Your task to perform on an android device: turn off javascript in the chrome app Image 0: 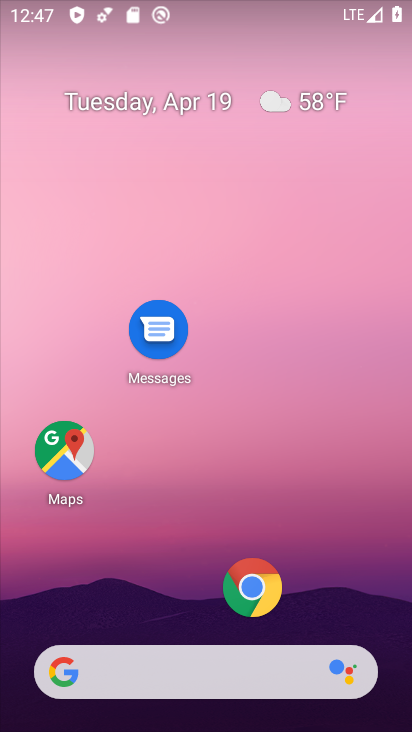
Step 0: drag from (169, 555) to (163, 98)
Your task to perform on an android device: turn off javascript in the chrome app Image 1: 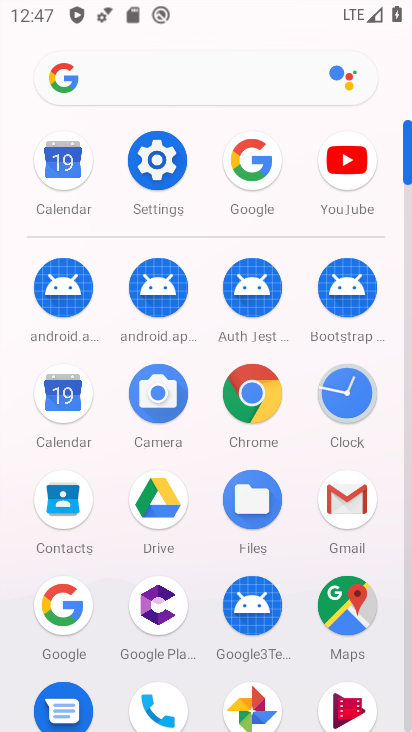
Step 1: click (252, 392)
Your task to perform on an android device: turn off javascript in the chrome app Image 2: 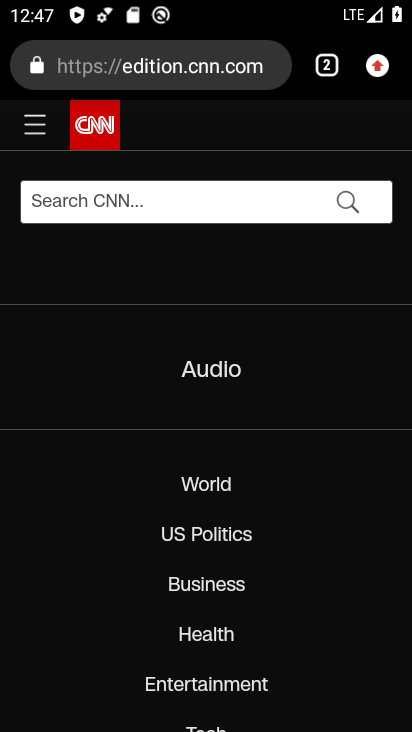
Step 2: click (375, 64)
Your task to perform on an android device: turn off javascript in the chrome app Image 3: 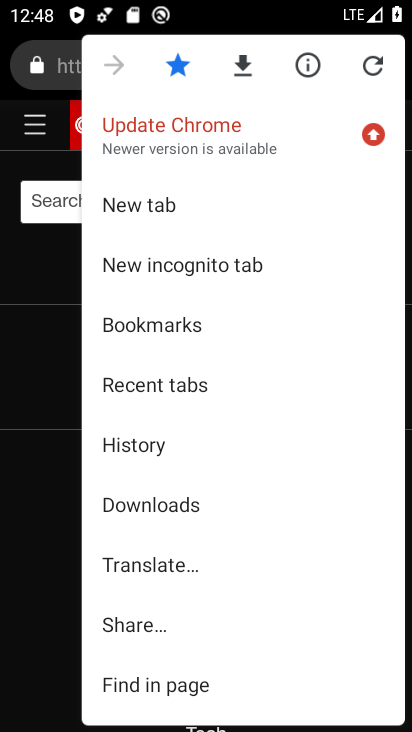
Step 3: drag from (214, 549) to (203, 108)
Your task to perform on an android device: turn off javascript in the chrome app Image 4: 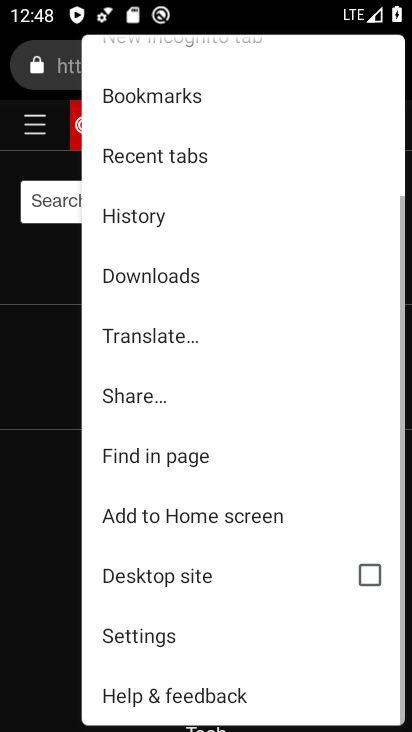
Step 4: click (180, 626)
Your task to perform on an android device: turn off javascript in the chrome app Image 5: 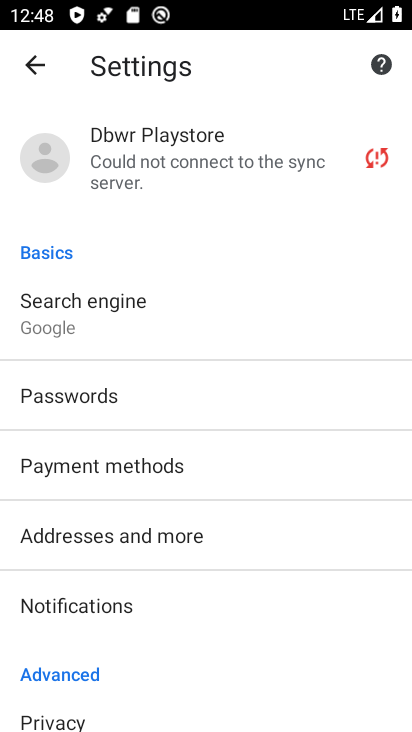
Step 5: drag from (210, 529) to (215, 171)
Your task to perform on an android device: turn off javascript in the chrome app Image 6: 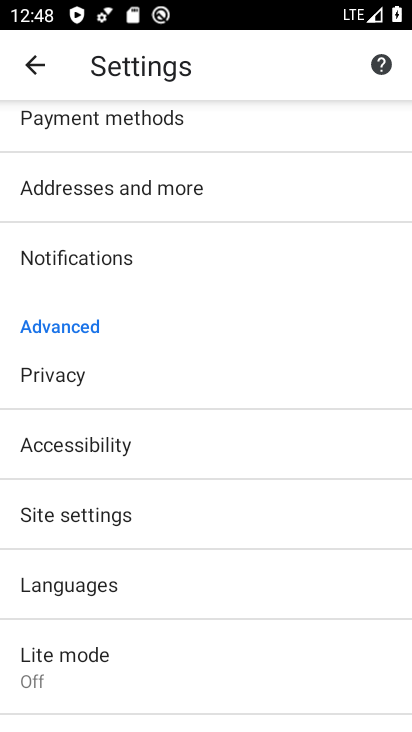
Step 6: click (86, 510)
Your task to perform on an android device: turn off javascript in the chrome app Image 7: 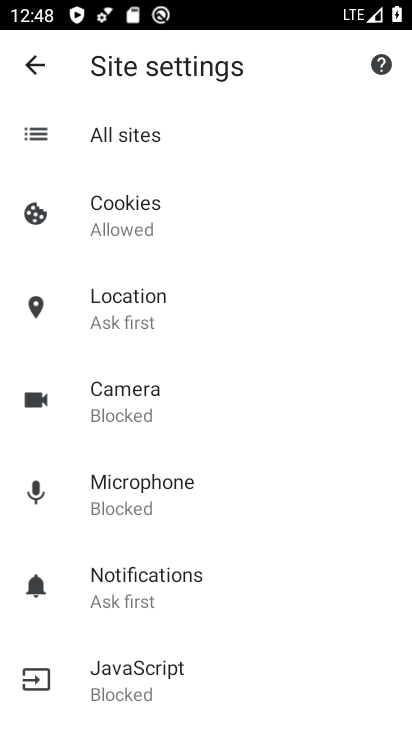
Step 7: drag from (187, 609) to (196, 378)
Your task to perform on an android device: turn off javascript in the chrome app Image 8: 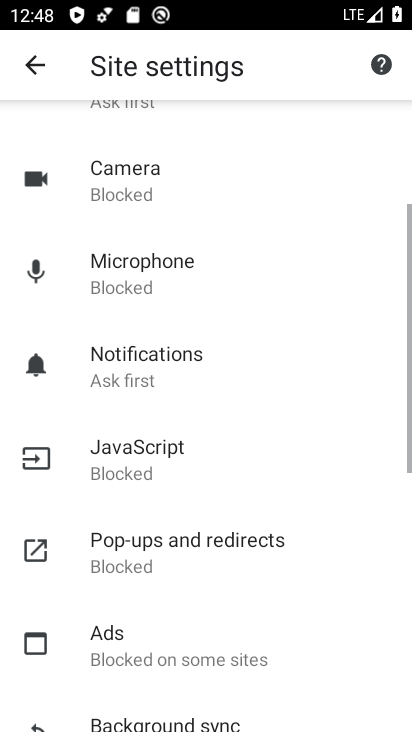
Step 8: click (121, 466)
Your task to perform on an android device: turn off javascript in the chrome app Image 9: 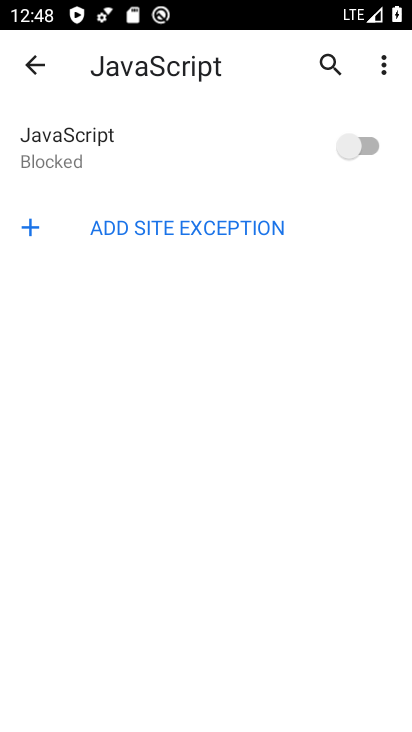
Step 9: task complete